Your task to perform on an android device: When is my next appointment? Image 0: 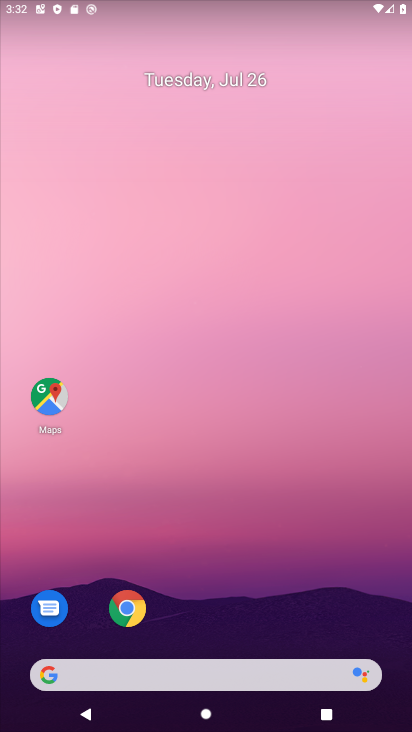
Step 0: drag from (273, 538) to (395, 179)
Your task to perform on an android device: When is my next appointment? Image 1: 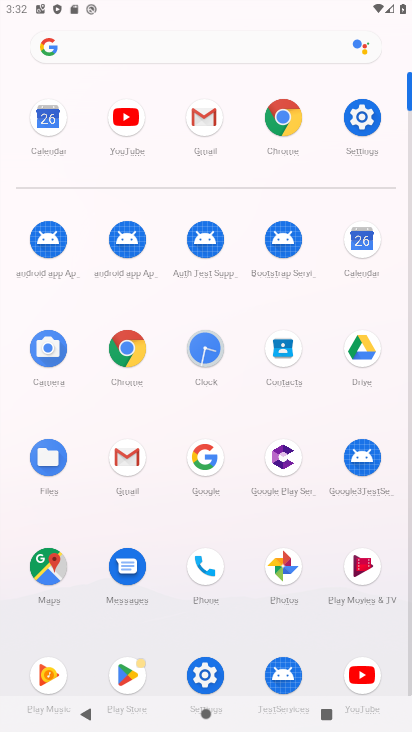
Step 1: click (359, 242)
Your task to perform on an android device: When is my next appointment? Image 2: 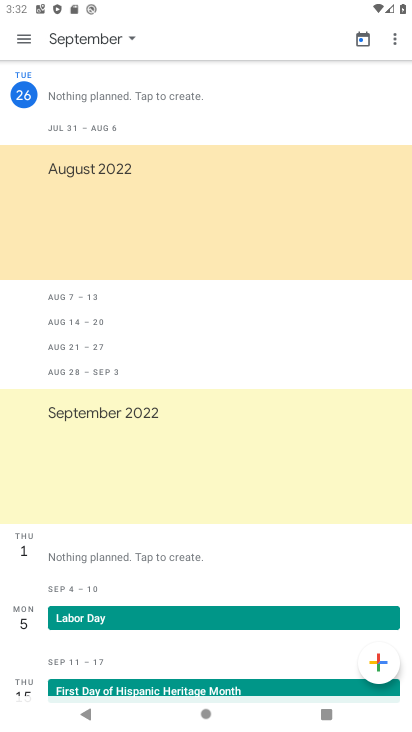
Step 2: task complete